Your task to perform on an android device: check data usage Image 0: 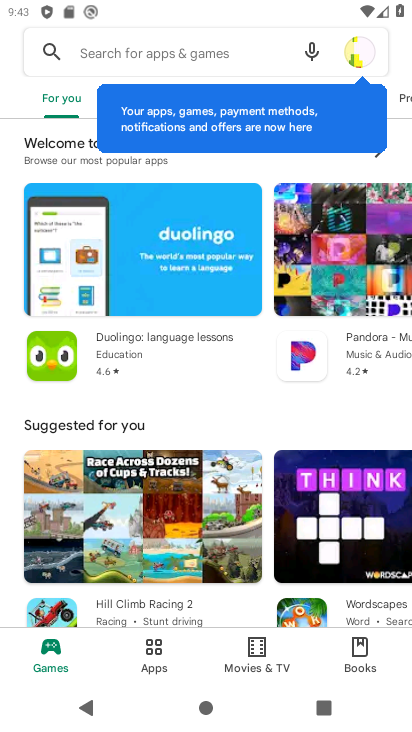
Step 0: press home button
Your task to perform on an android device: check data usage Image 1: 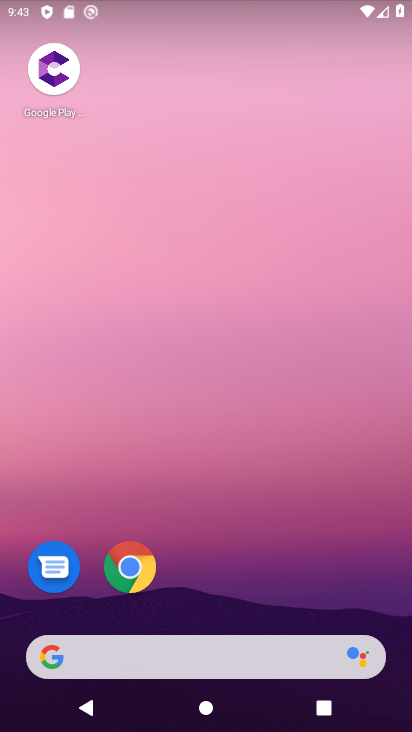
Step 1: drag from (306, 674) to (240, 15)
Your task to perform on an android device: check data usage Image 2: 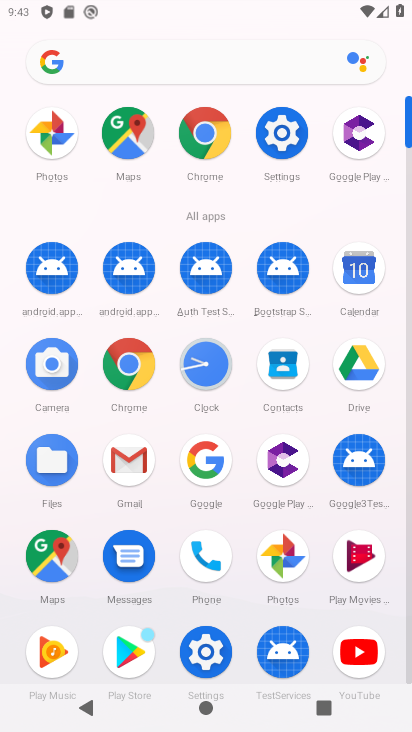
Step 2: click (281, 143)
Your task to perform on an android device: check data usage Image 3: 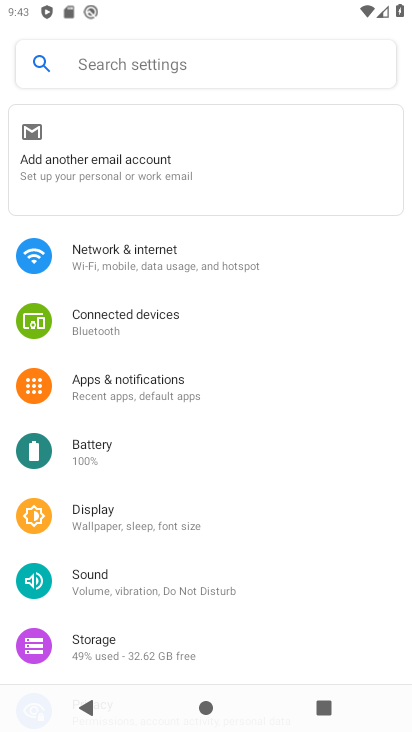
Step 3: click (236, 260)
Your task to perform on an android device: check data usage Image 4: 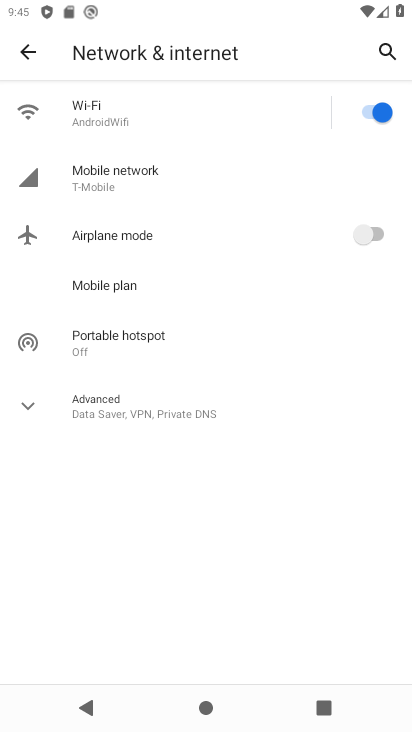
Step 4: click (105, 170)
Your task to perform on an android device: check data usage Image 5: 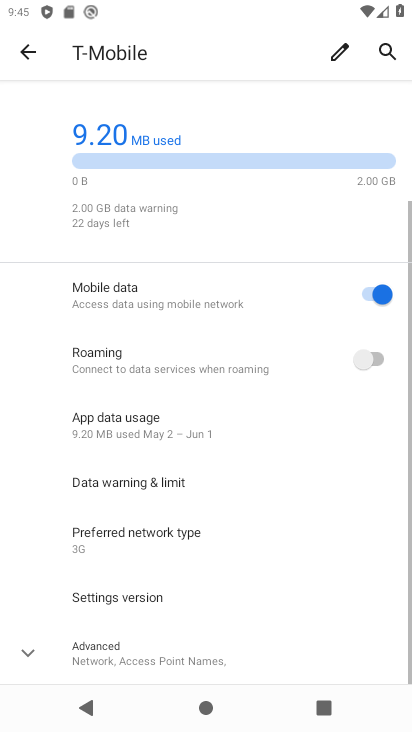
Step 5: task complete